Your task to perform on an android device: Go to notification settings Image 0: 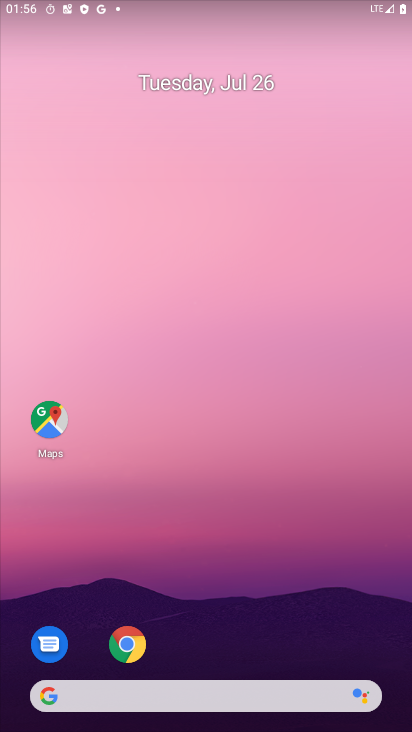
Step 0: drag from (258, 595) to (200, 25)
Your task to perform on an android device: Go to notification settings Image 1: 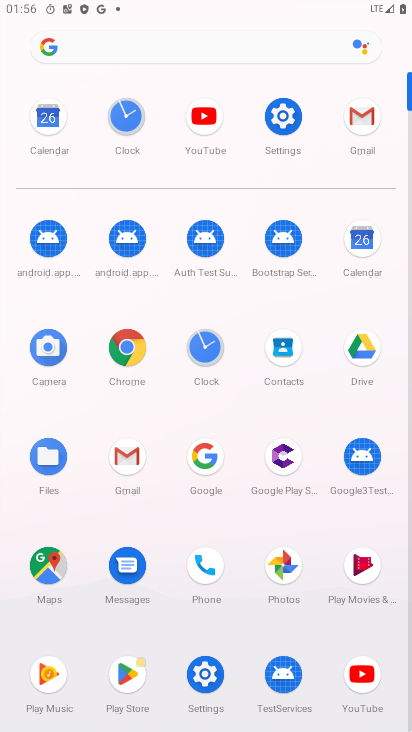
Step 1: click (281, 114)
Your task to perform on an android device: Go to notification settings Image 2: 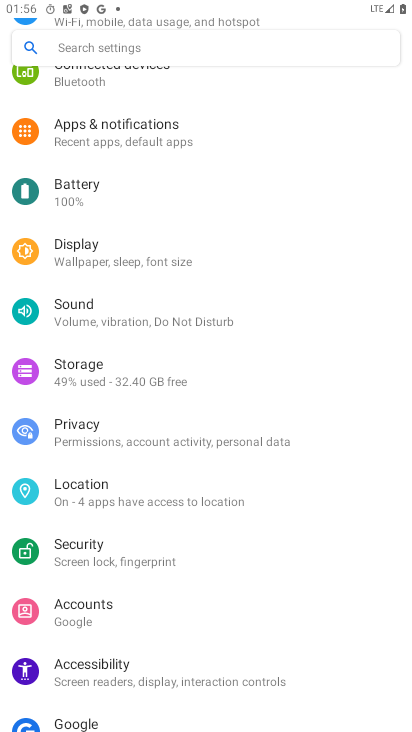
Step 2: click (109, 140)
Your task to perform on an android device: Go to notification settings Image 3: 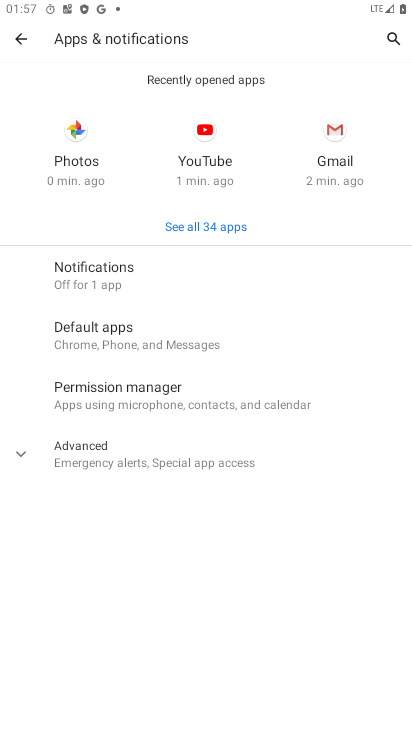
Step 3: click (68, 282)
Your task to perform on an android device: Go to notification settings Image 4: 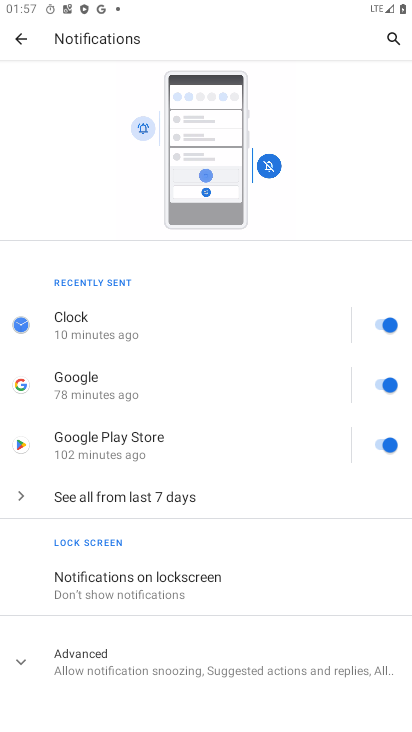
Step 4: task complete